Your task to perform on an android device: What's the weather? Image 0: 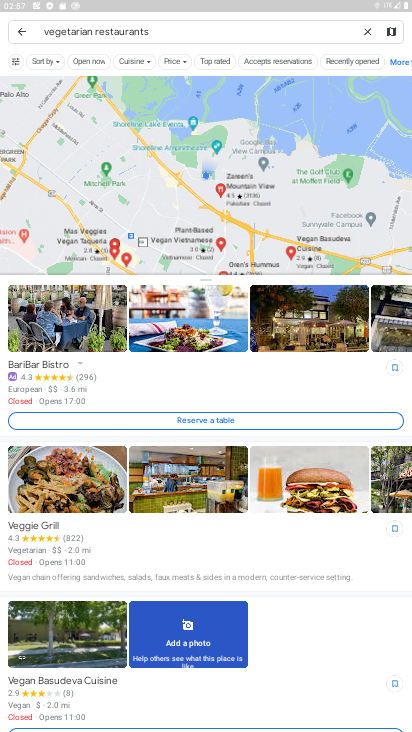
Step 0: press home button
Your task to perform on an android device: What's the weather? Image 1: 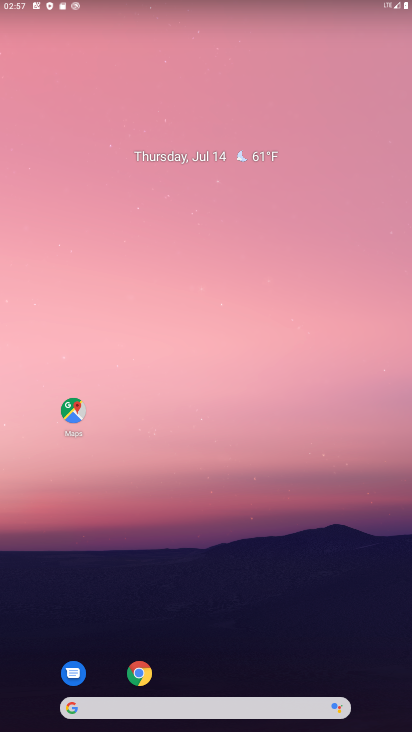
Step 1: click (178, 707)
Your task to perform on an android device: What's the weather? Image 2: 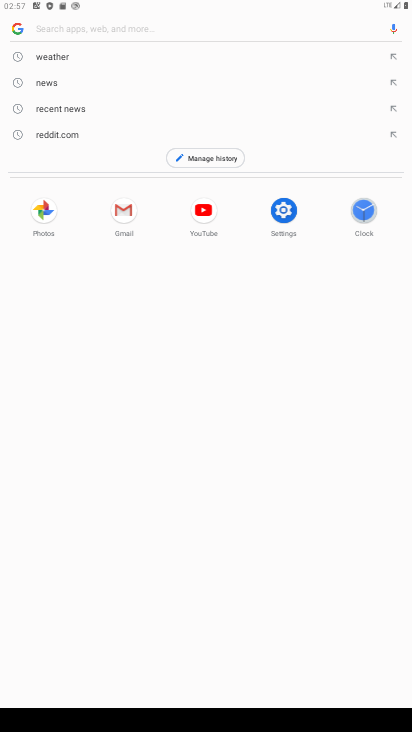
Step 2: click (99, 62)
Your task to perform on an android device: What's the weather? Image 3: 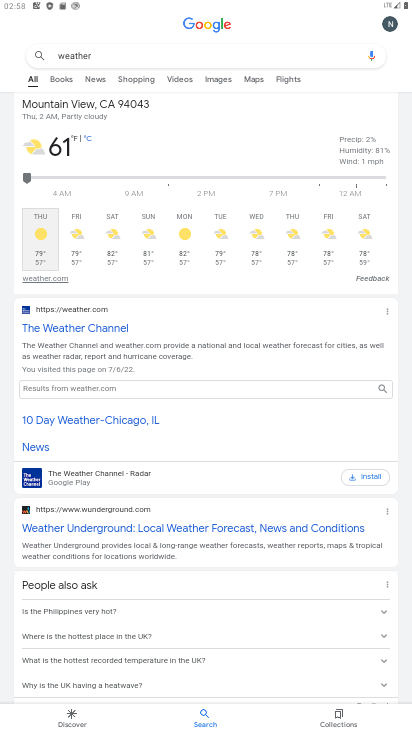
Step 3: task complete